Your task to perform on an android device: open the mobile data screen to see how much data has been used Image 0: 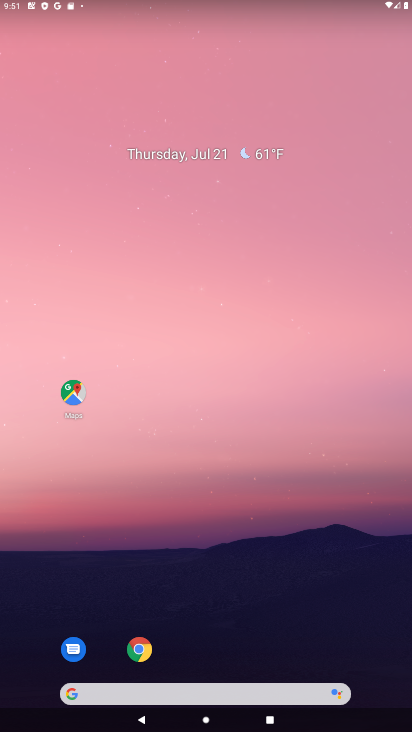
Step 0: drag from (208, 693) to (302, 217)
Your task to perform on an android device: open the mobile data screen to see how much data has been used Image 1: 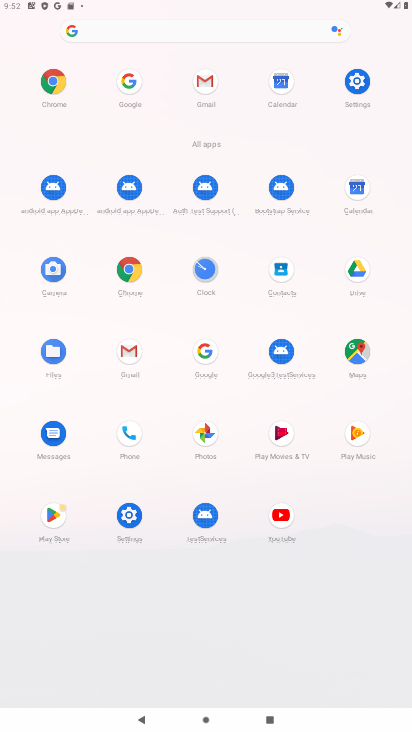
Step 1: click (355, 81)
Your task to perform on an android device: open the mobile data screen to see how much data has been used Image 2: 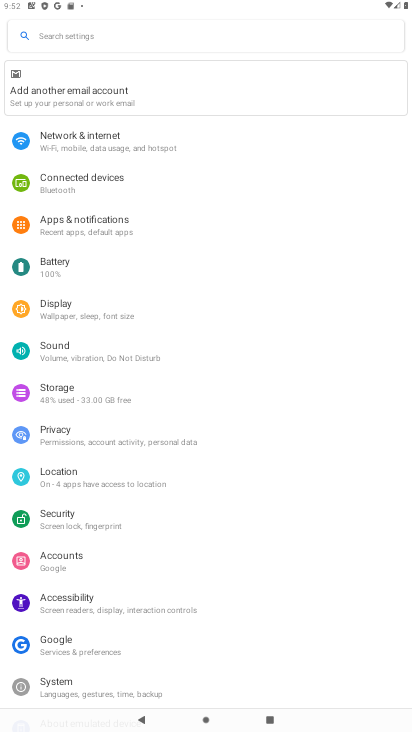
Step 2: click (95, 141)
Your task to perform on an android device: open the mobile data screen to see how much data has been used Image 3: 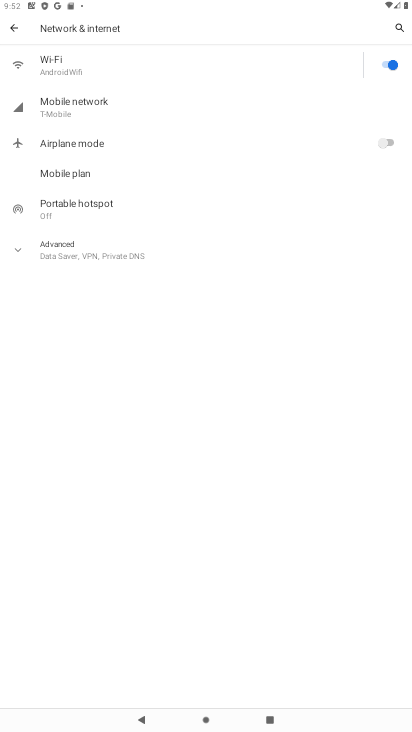
Step 3: click (77, 107)
Your task to perform on an android device: open the mobile data screen to see how much data has been used Image 4: 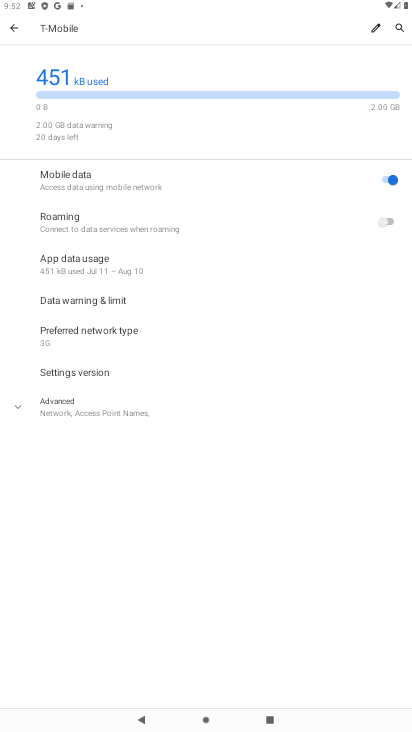
Step 4: task complete